Your task to perform on an android device: open app "Messages" (install if not already installed) Image 0: 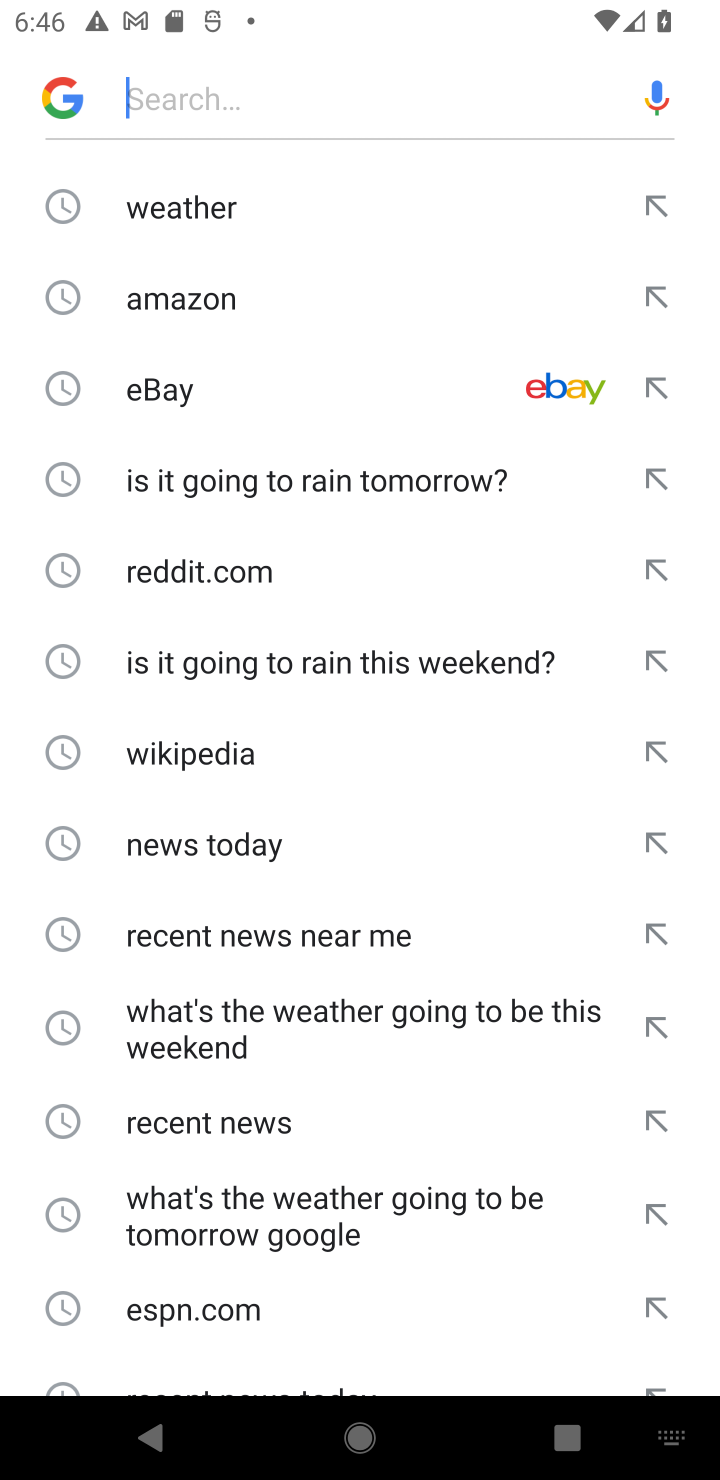
Step 0: press home button
Your task to perform on an android device: open app "Messages" (install if not already installed) Image 1: 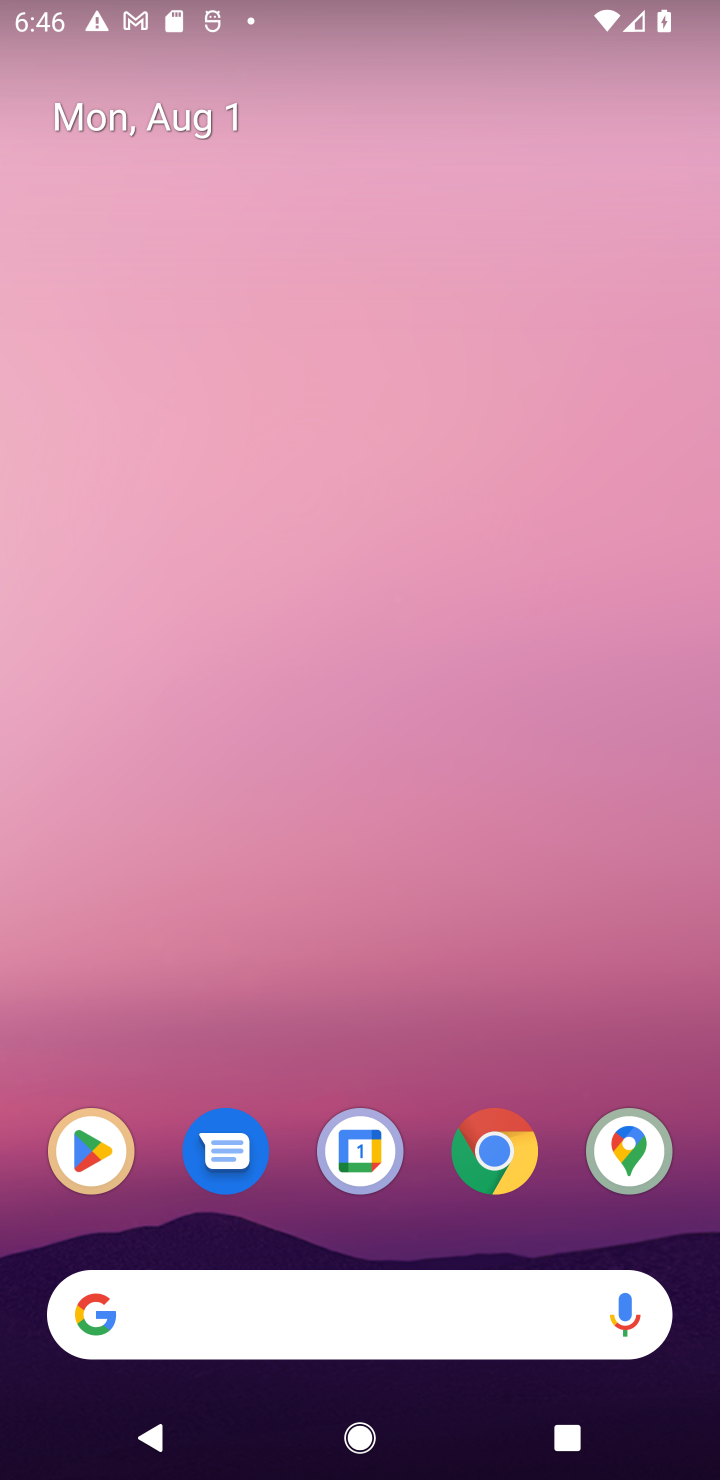
Step 1: drag from (447, 1299) to (282, 485)
Your task to perform on an android device: open app "Messages" (install if not already installed) Image 2: 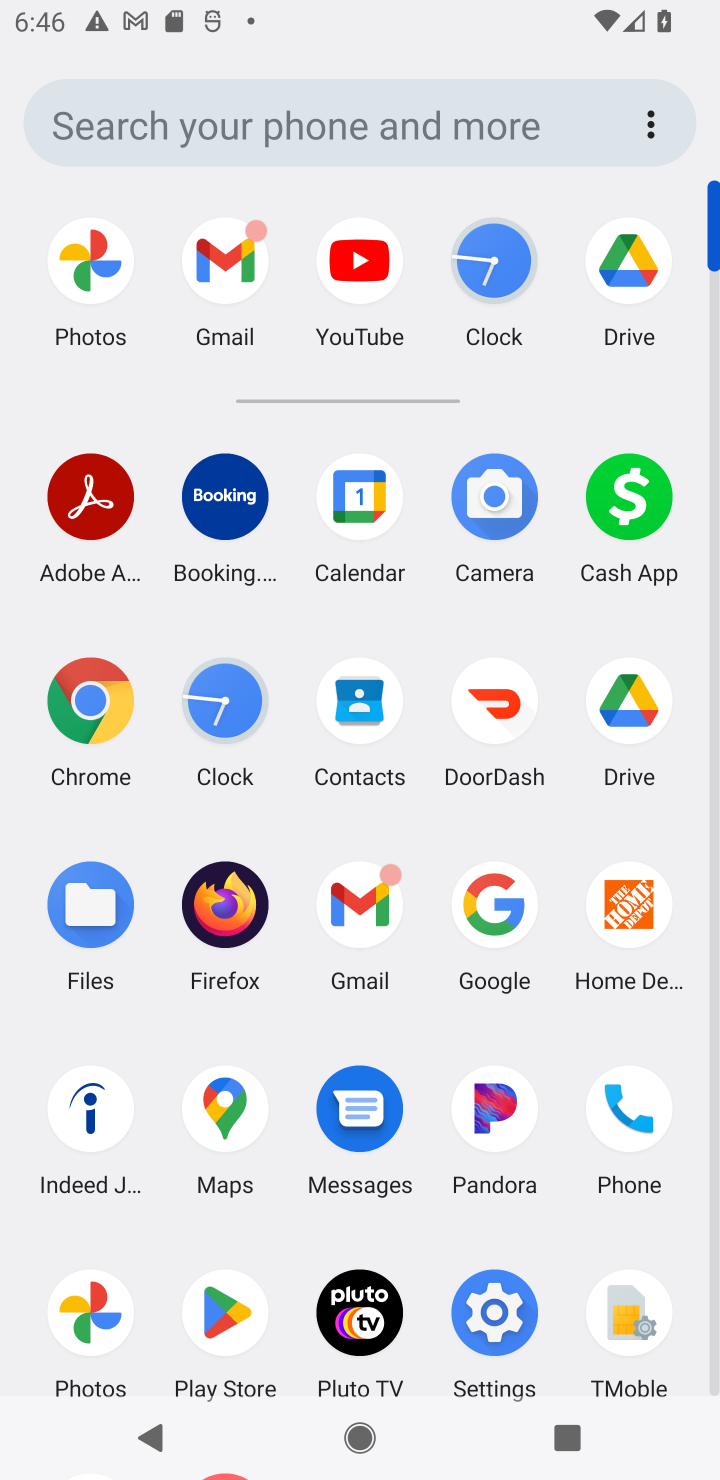
Step 2: click (227, 1317)
Your task to perform on an android device: open app "Messages" (install if not already installed) Image 3: 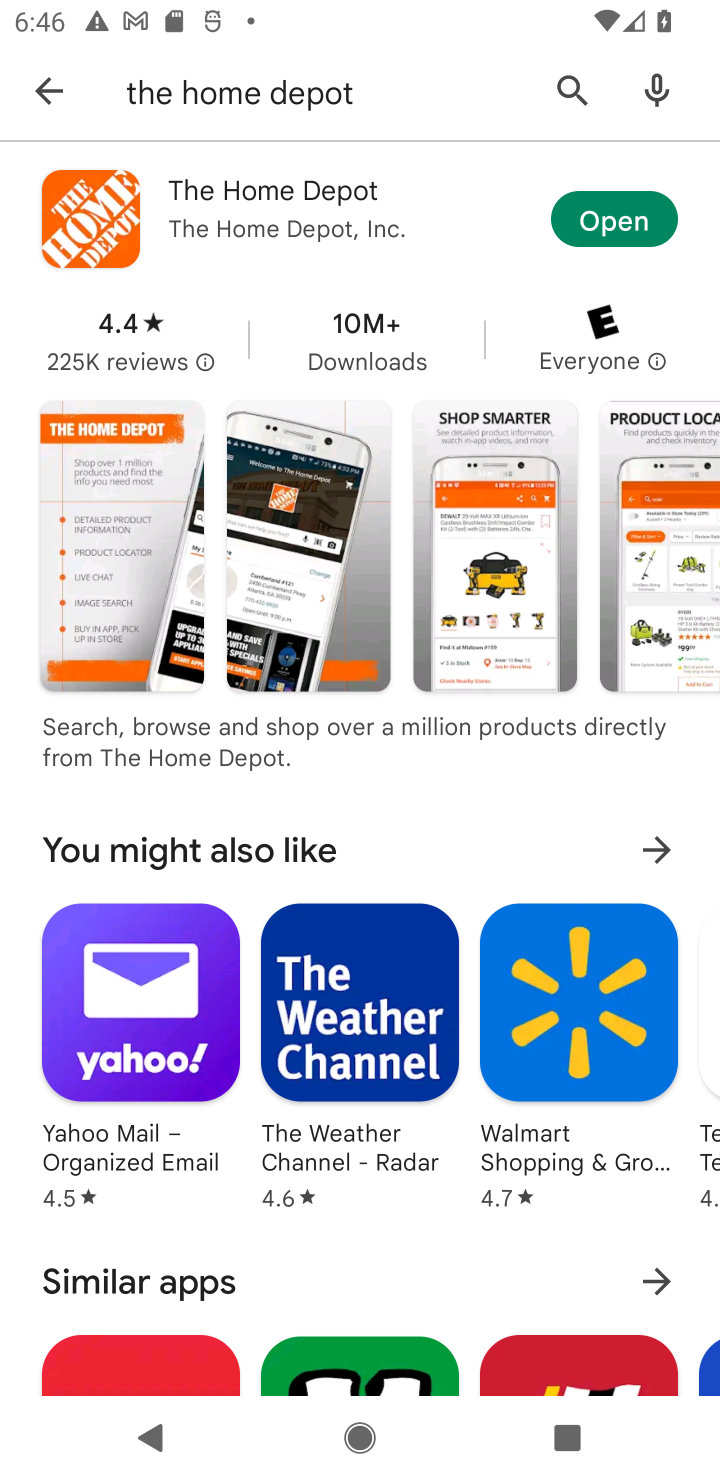
Step 3: click (567, 77)
Your task to perform on an android device: open app "Messages" (install if not already installed) Image 4: 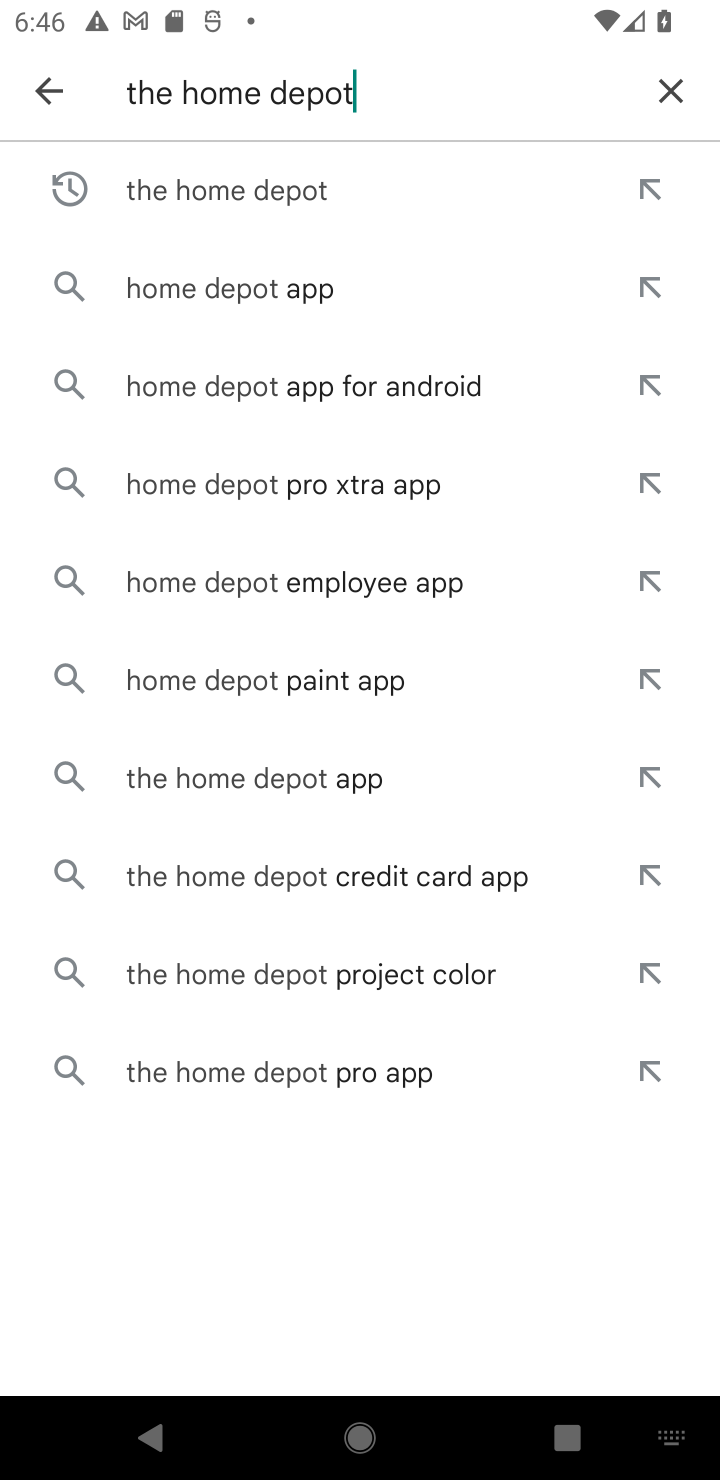
Step 4: click (674, 85)
Your task to perform on an android device: open app "Messages" (install if not already installed) Image 5: 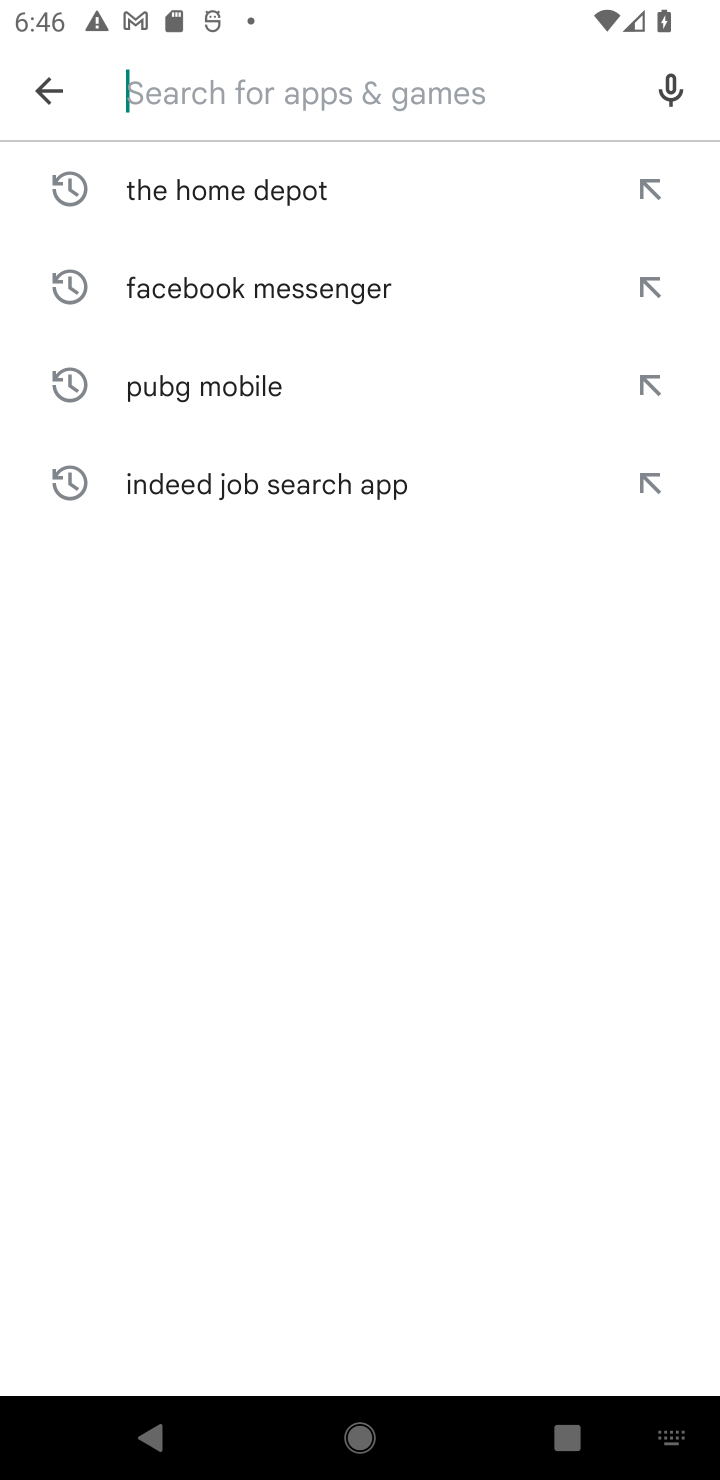
Step 5: type "messages"
Your task to perform on an android device: open app "Messages" (install if not already installed) Image 6: 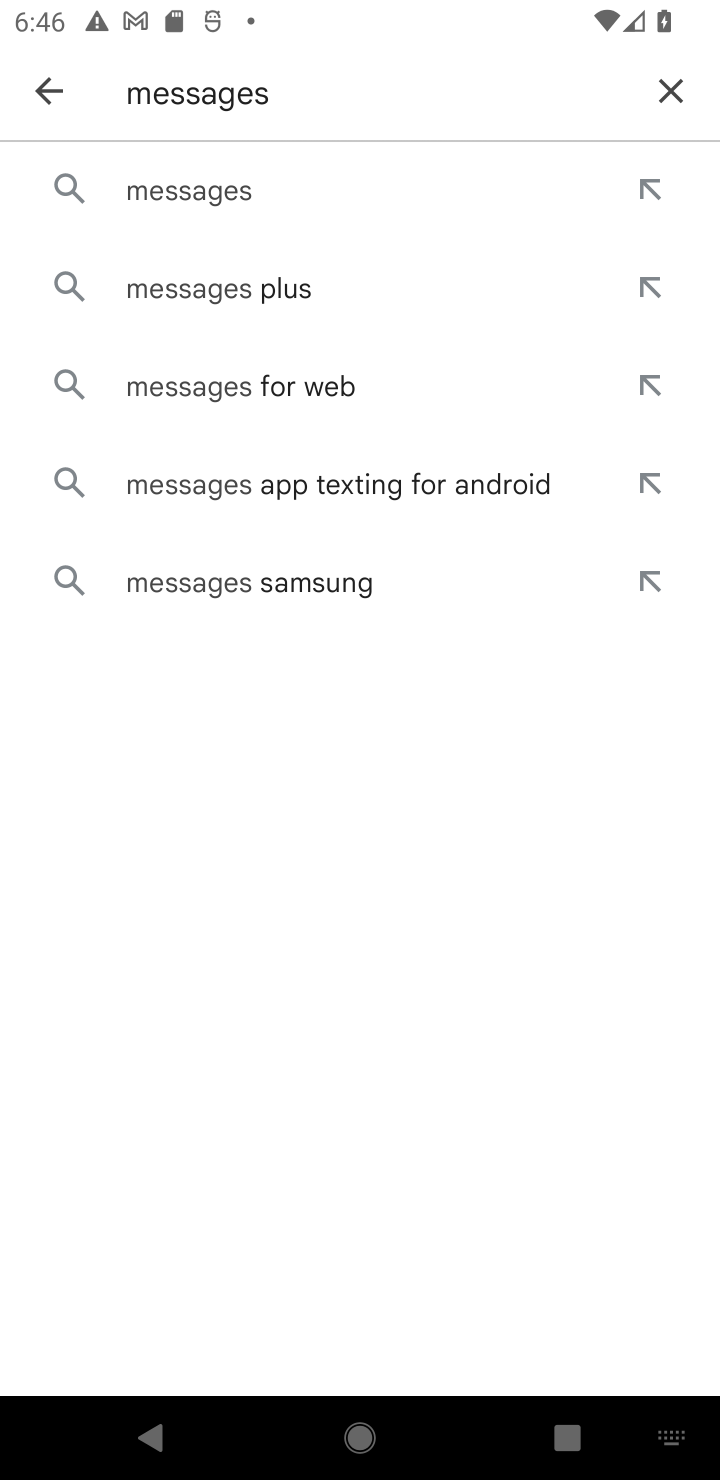
Step 6: click (193, 183)
Your task to perform on an android device: open app "Messages" (install if not already installed) Image 7: 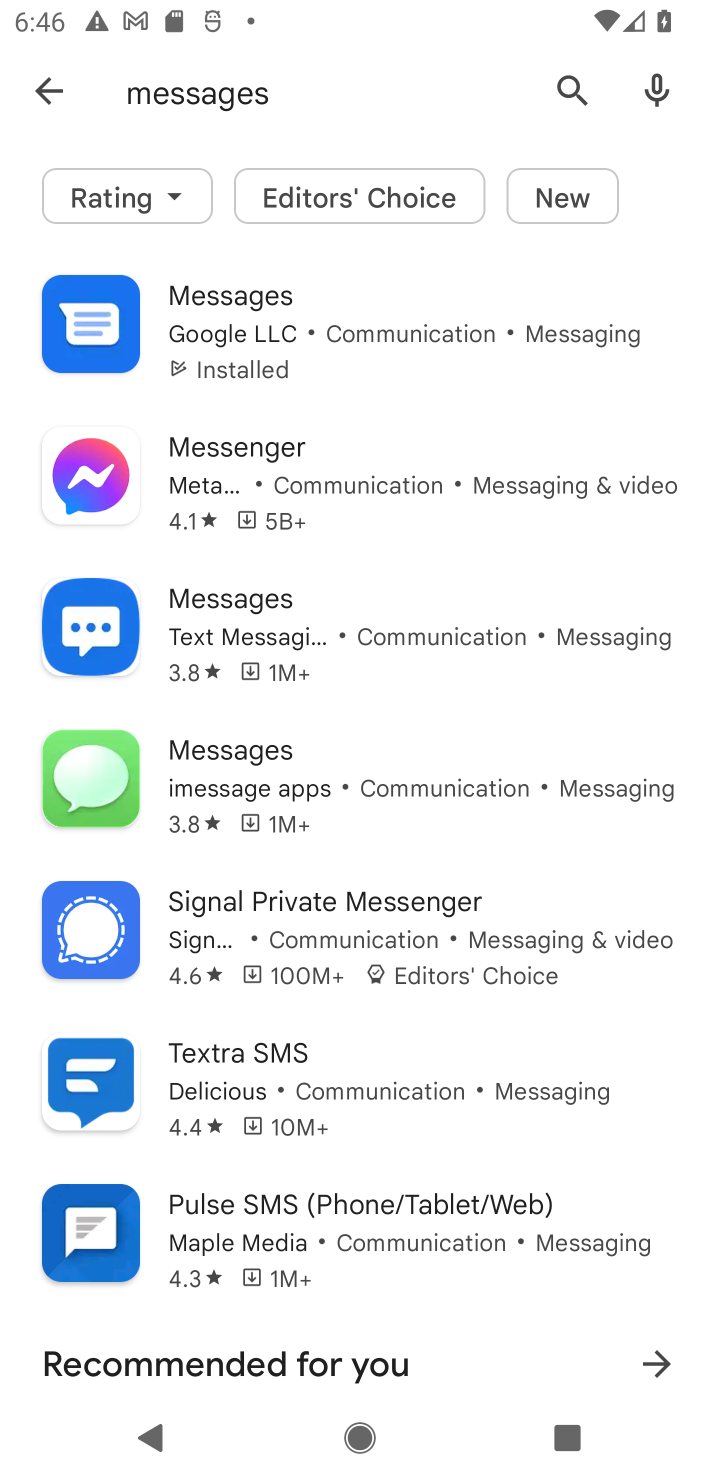
Step 7: click (288, 358)
Your task to perform on an android device: open app "Messages" (install if not already installed) Image 8: 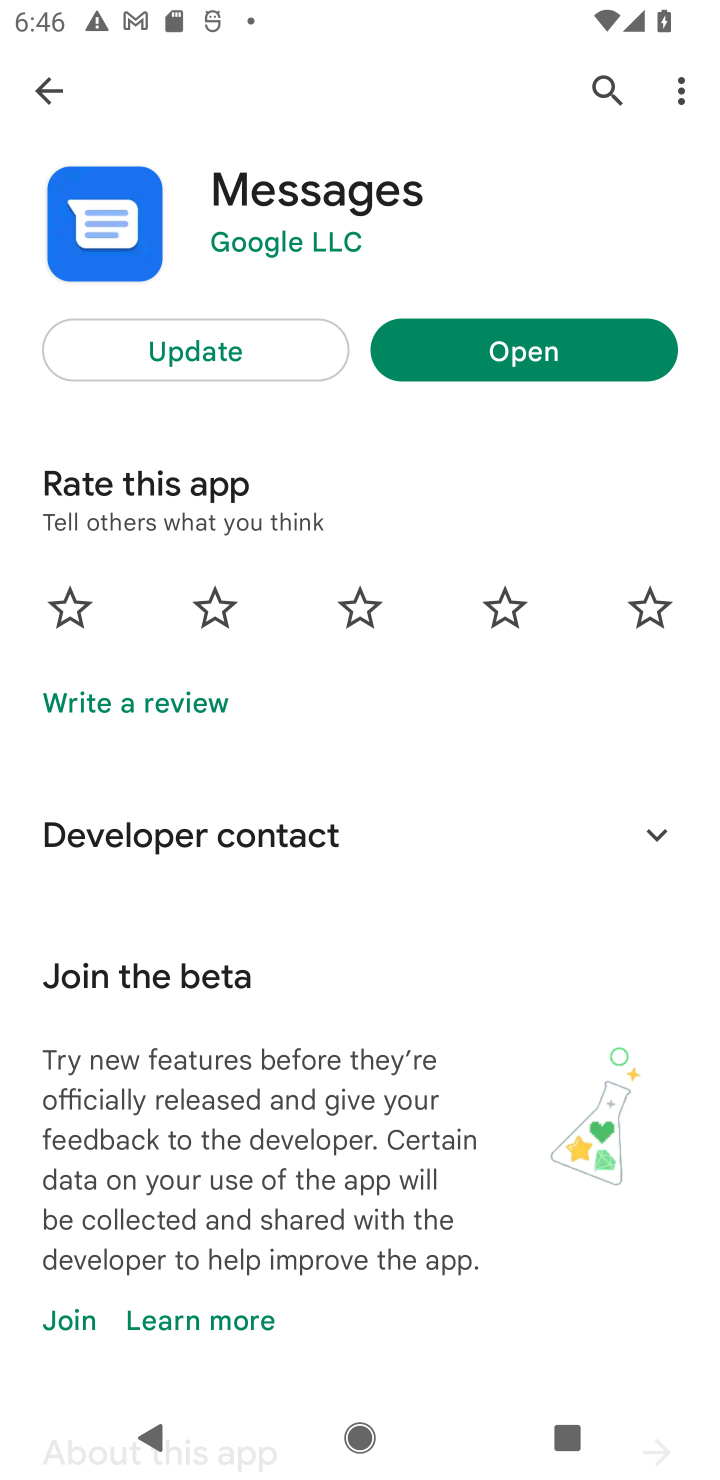
Step 8: click (499, 354)
Your task to perform on an android device: open app "Messages" (install if not already installed) Image 9: 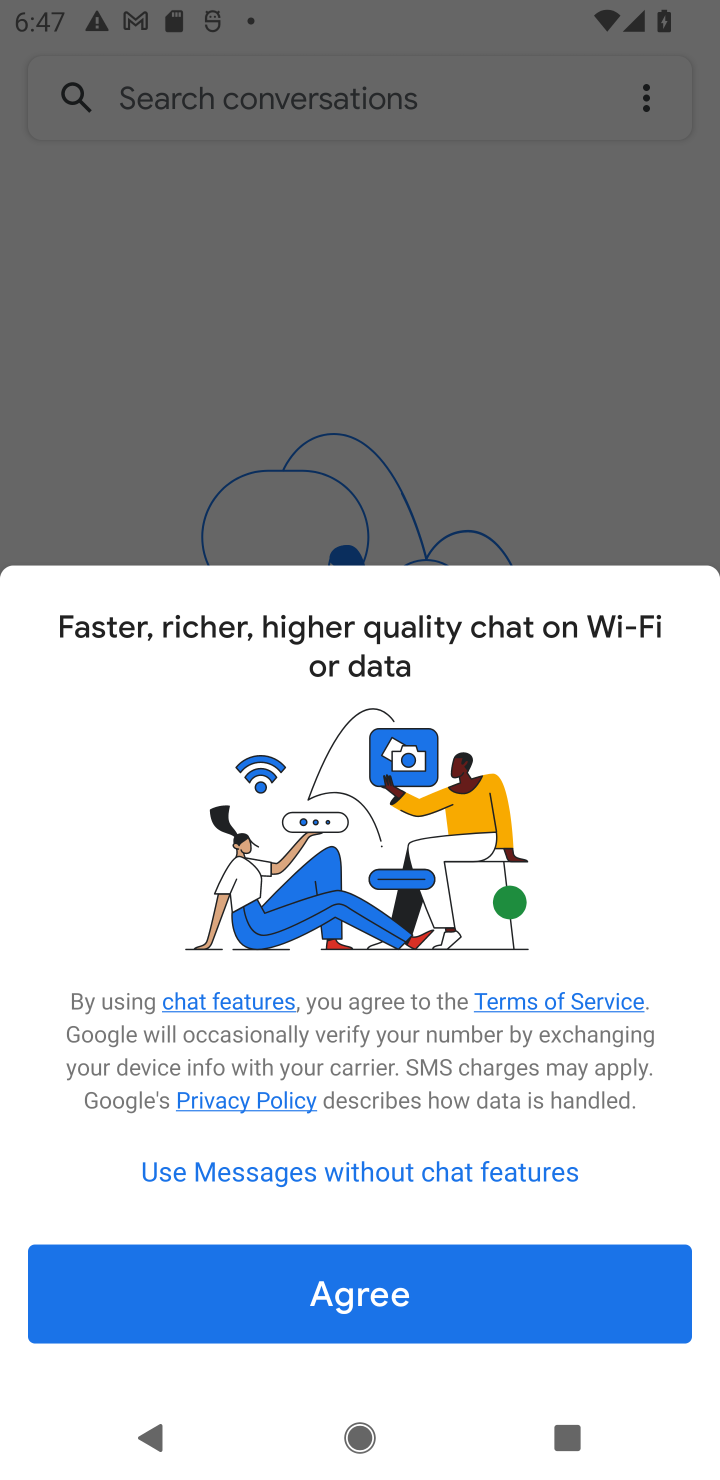
Step 9: task complete